Your task to perform on an android device: change the upload size in google photos Image 0: 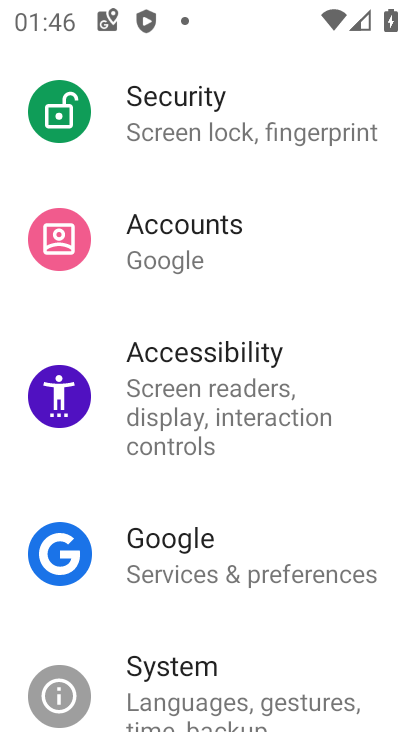
Step 0: press home button
Your task to perform on an android device: change the upload size in google photos Image 1: 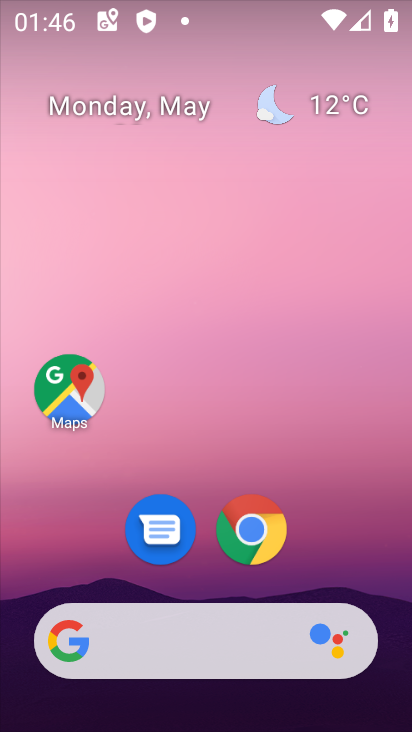
Step 1: drag from (399, 641) to (320, 131)
Your task to perform on an android device: change the upload size in google photos Image 2: 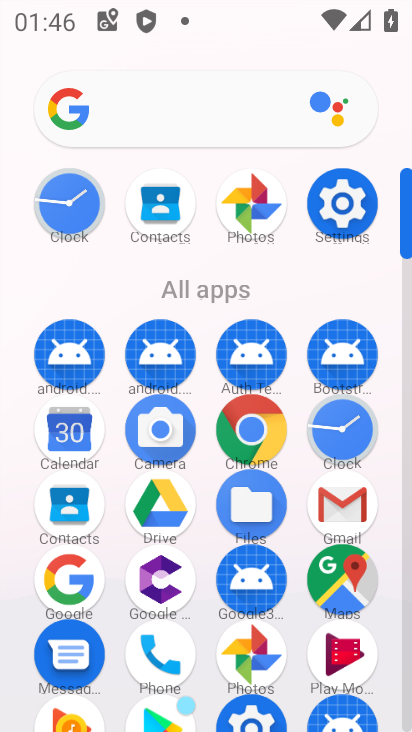
Step 2: click (409, 698)
Your task to perform on an android device: change the upload size in google photos Image 3: 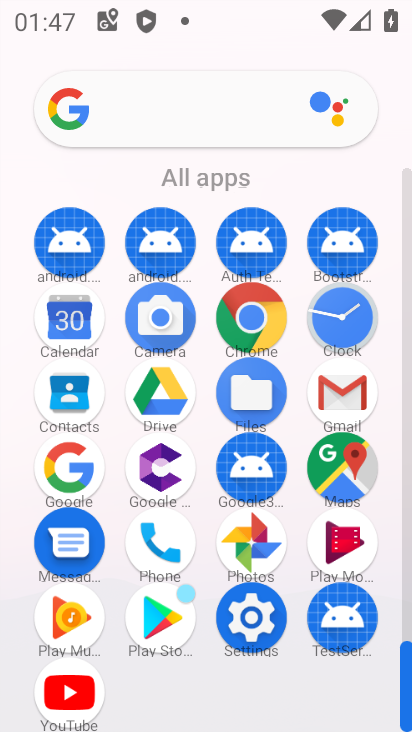
Step 3: click (251, 544)
Your task to perform on an android device: change the upload size in google photos Image 4: 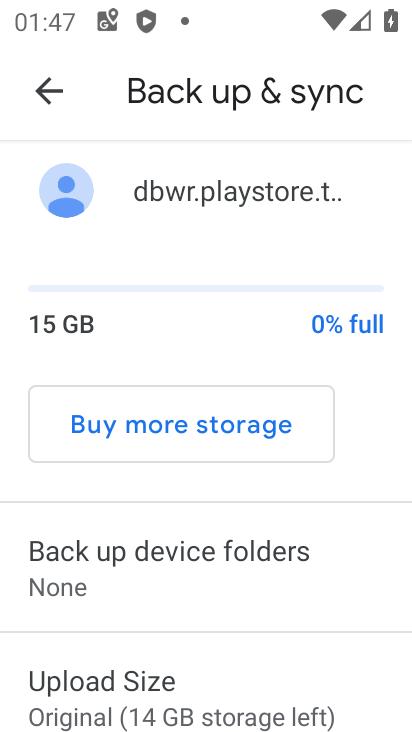
Step 4: drag from (227, 645) to (193, 250)
Your task to perform on an android device: change the upload size in google photos Image 5: 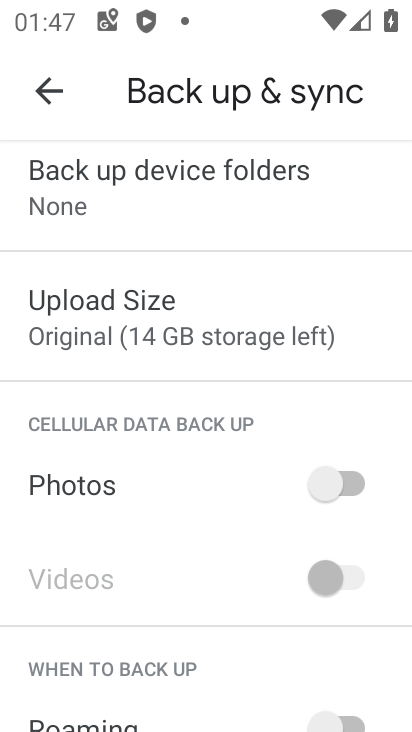
Step 5: click (57, 312)
Your task to perform on an android device: change the upload size in google photos Image 6: 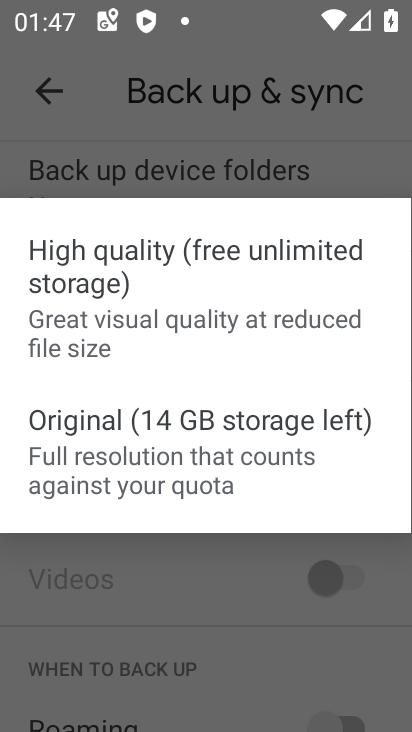
Step 6: click (91, 277)
Your task to perform on an android device: change the upload size in google photos Image 7: 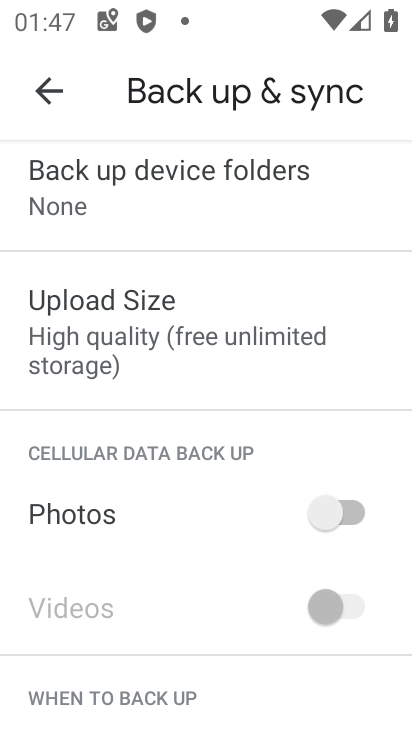
Step 7: task complete